Your task to perform on an android device: Open Google Chrome and click the shortcut for Amazon.com Image 0: 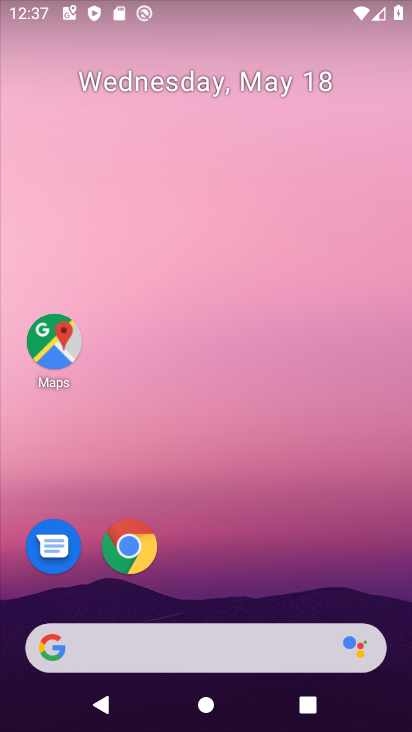
Step 0: press home button
Your task to perform on an android device: Open Google Chrome and click the shortcut for Amazon.com Image 1: 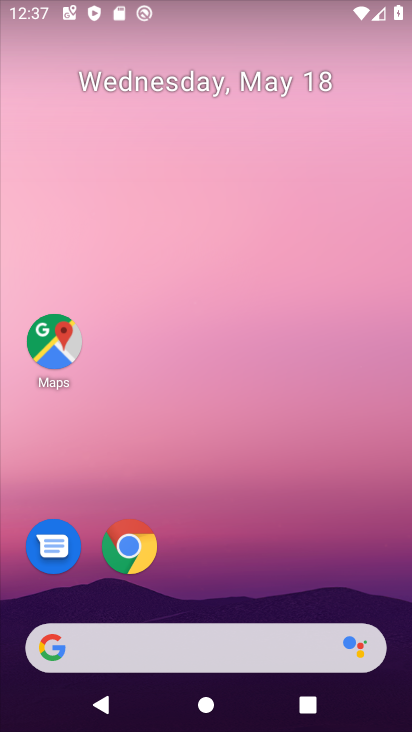
Step 1: click (133, 552)
Your task to perform on an android device: Open Google Chrome and click the shortcut for Amazon.com Image 2: 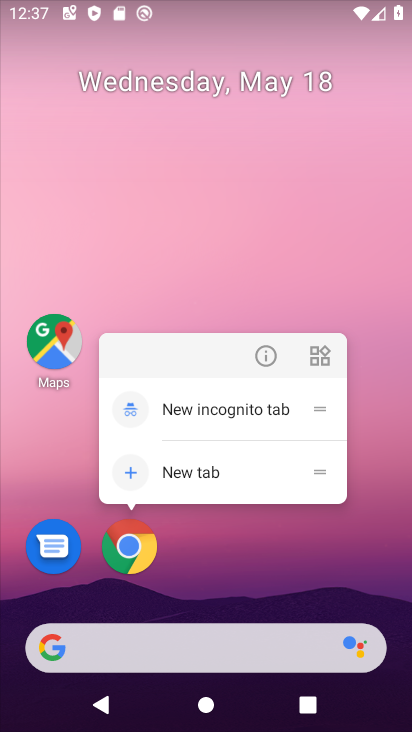
Step 2: click (119, 554)
Your task to perform on an android device: Open Google Chrome and click the shortcut for Amazon.com Image 3: 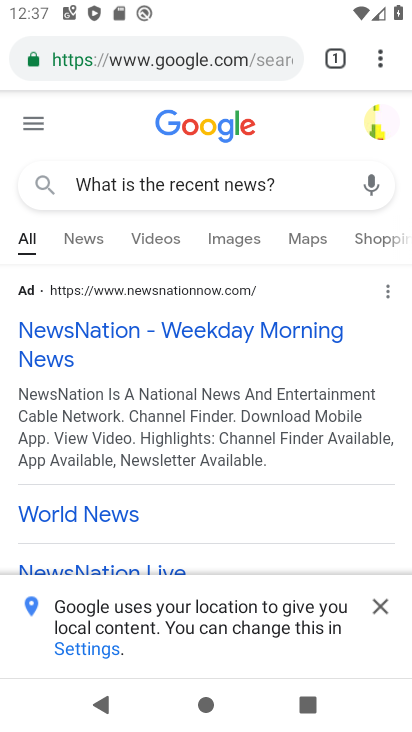
Step 3: click (273, 50)
Your task to perform on an android device: Open Google Chrome and click the shortcut for Amazon.com Image 4: 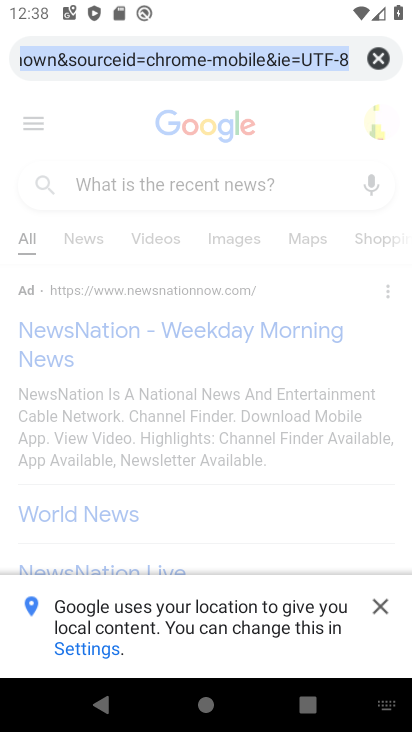
Step 4: click (386, 60)
Your task to perform on an android device: Open Google Chrome and click the shortcut for Amazon.com Image 5: 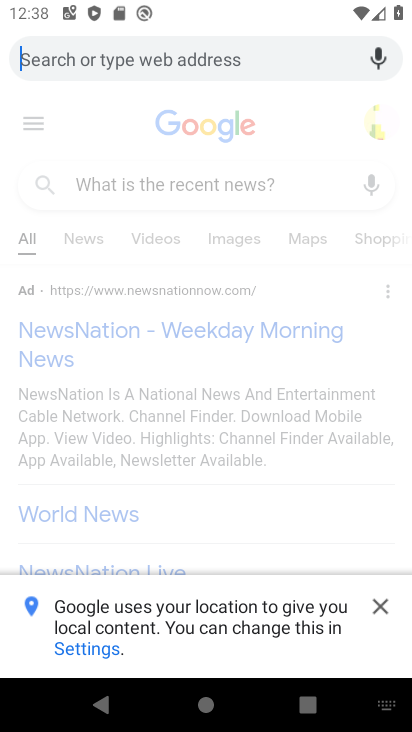
Step 5: click (126, 63)
Your task to perform on an android device: Open Google Chrome and click the shortcut for Amazon.com Image 6: 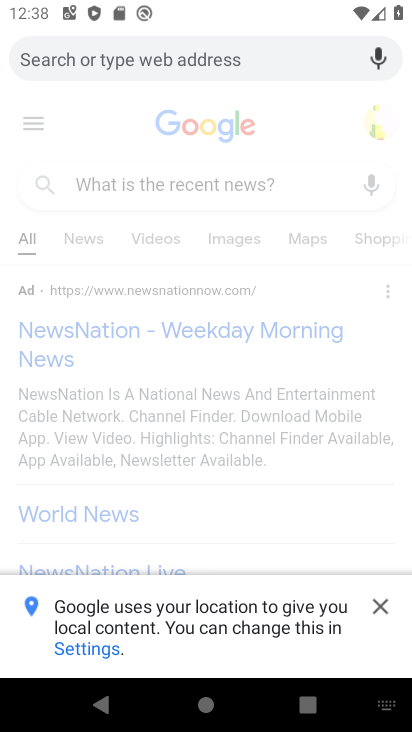
Step 6: type " Amazon.com"
Your task to perform on an android device: Open Google Chrome and click the shortcut for Amazon.com Image 7: 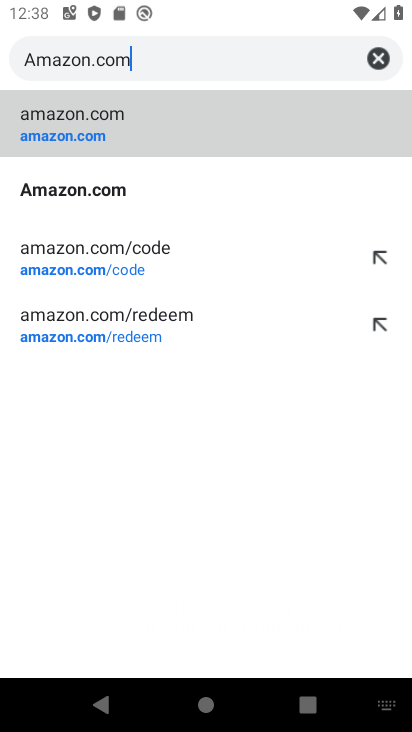
Step 7: click (93, 123)
Your task to perform on an android device: Open Google Chrome and click the shortcut for Amazon.com Image 8: 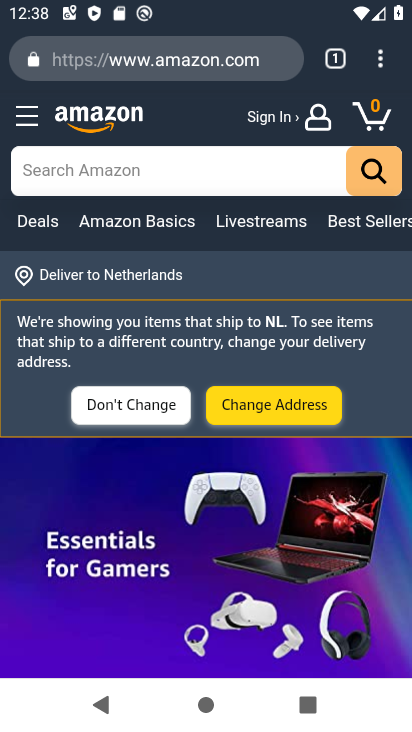
Step 8: task complete